Your task to perform on an android device: Open Maps and search for coffee Image 0: 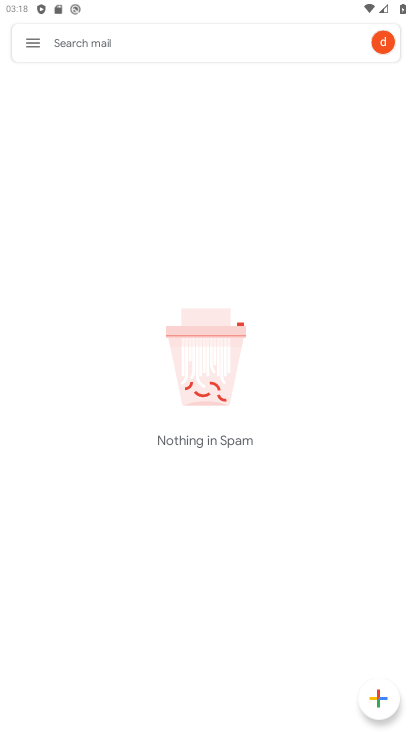
Step 0: press home button
Your task to perform on an android device: Open Maps and search for coffee Image 1: 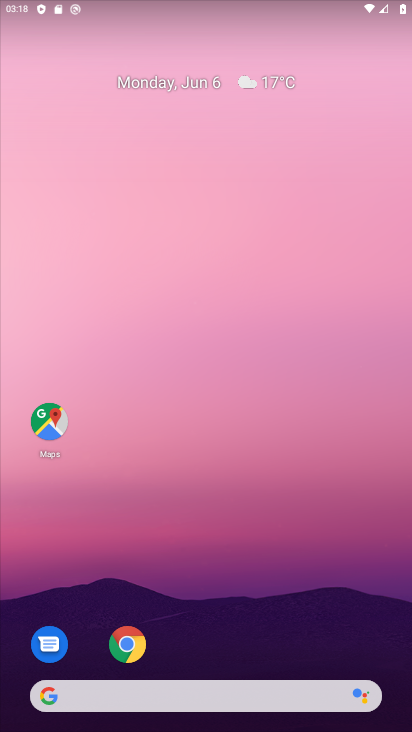
Step 1: click (48, 420)
Your task to perform on an android device: Open Maps and search for coffee Image 2: 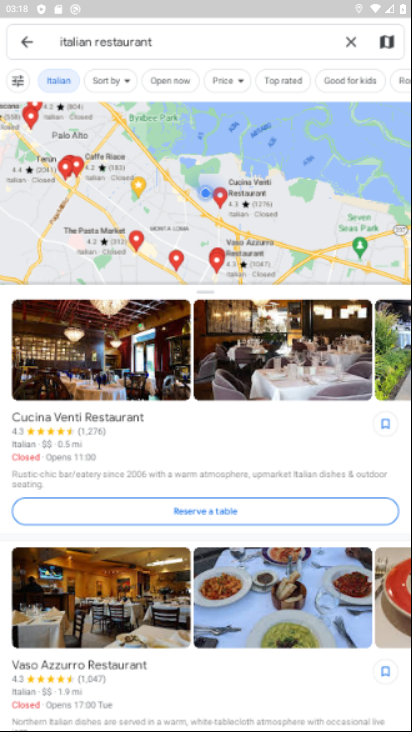
Step 2: click (345, 42)
Your task to perform on an android device: Open Maps and search for coffee Image 3: 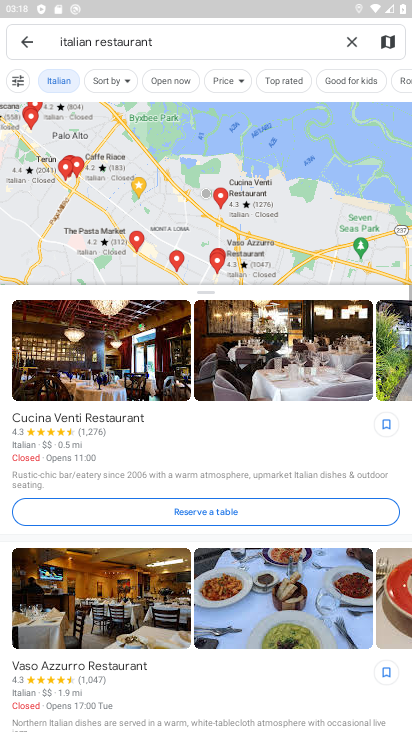
Step 3: click (347, 39)
Your task to perform on an android device: Open Maps and search for coffee Image 4: 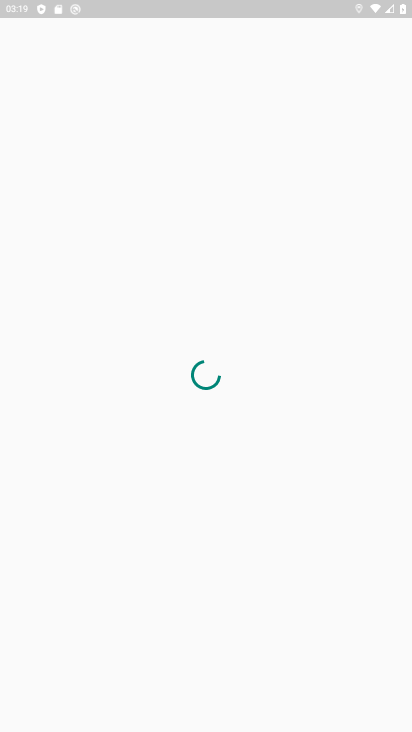
Step 4: click (61, 48)
Your task to perform on an android device: Open Maps and search for coffee Image 5: 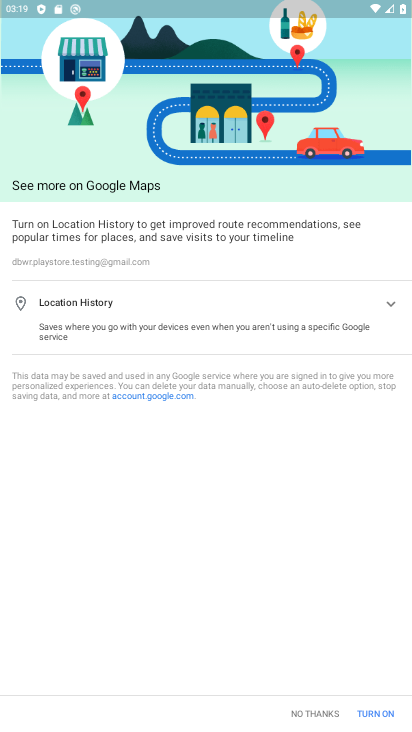
Step 5: type "coffee"
Your task to perform on an android device: Open Maps and search for coffee Image 6: 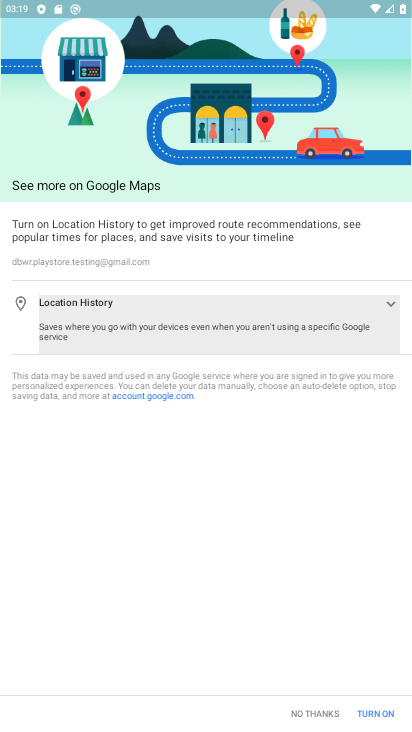
Step 6: click (370, 714)
Your task to perform on an android device: Open Maps and search for coffee Image 7: 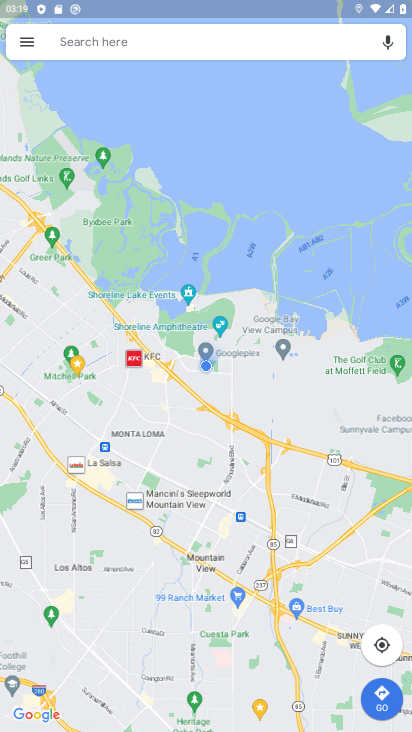
Step 7: click (90, 30)
Your task to perform on an android device: Open Maps and search for coffee Image 8: 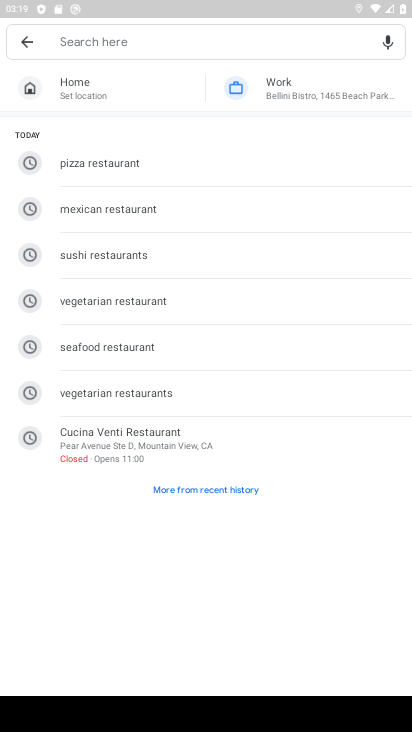
Step 8: type "coffee"
Your task to perform on an android device: Open Maps and search for coffee Image 9: 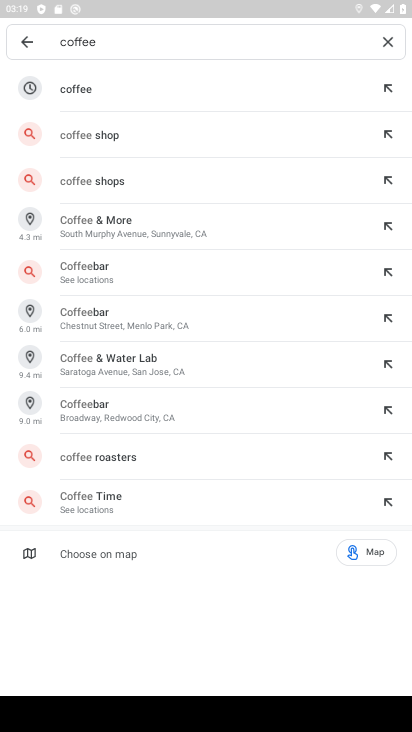
Step 9: click (98, 135)
Your task to perform on an android device: Open Maps and search for coffee Image 10: 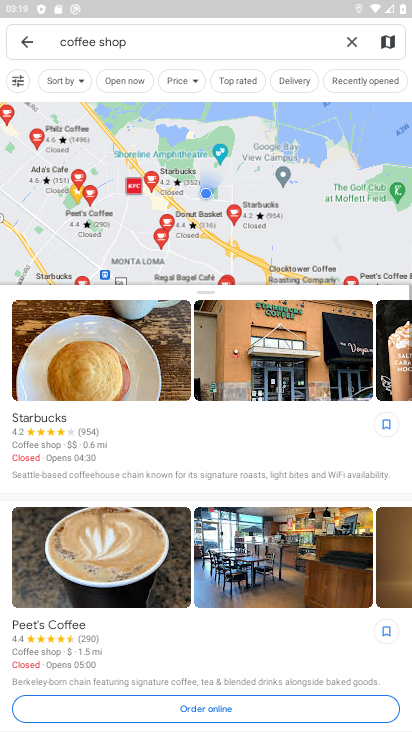
Step 10: task complete